Your task to perform on an android device: search for starred emails in the gmail app Image 0: 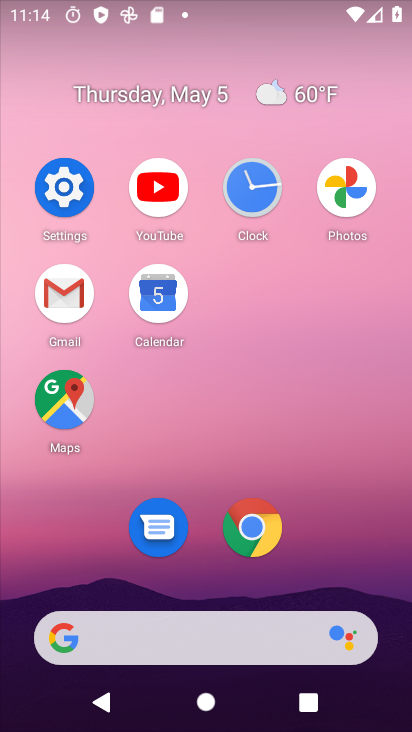
Step 0: click (78, 284)
Your task to perform on an android device: search for starred emails in the gmail app Image 1: 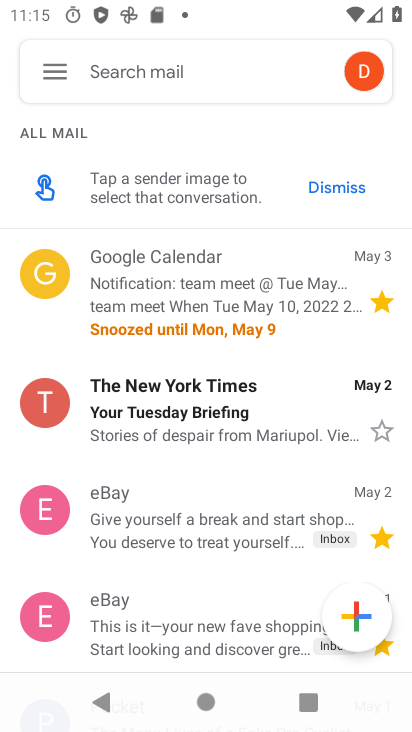
Step 1: click (56, 58)
Your task to perform on an android device: search for starred emails in the gmail app Image 2: 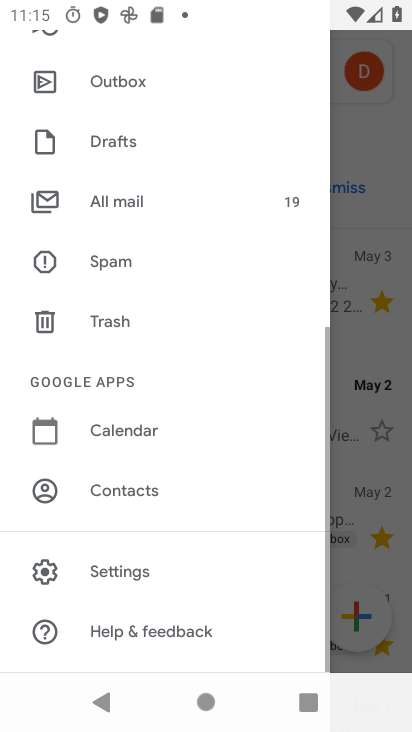
Step 2: drag from (171, 236) to (192, 660)
Your task to perform on an android device: search for starred emails in the gmail app Image 3: 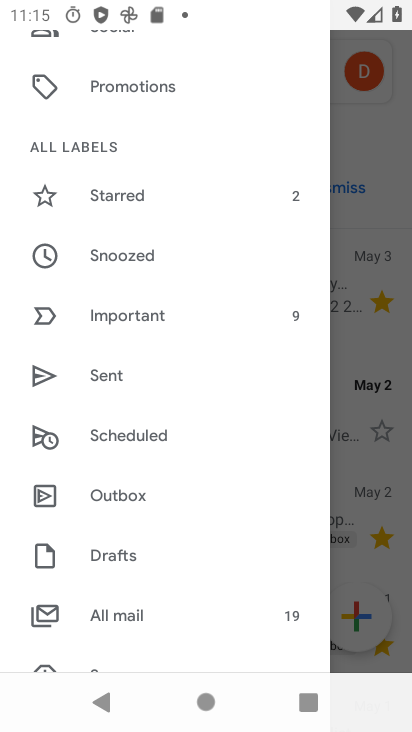
Step 3: click (133, 190)
Your task to perform on an android device: search for starred emails in the gmail app Image 4: 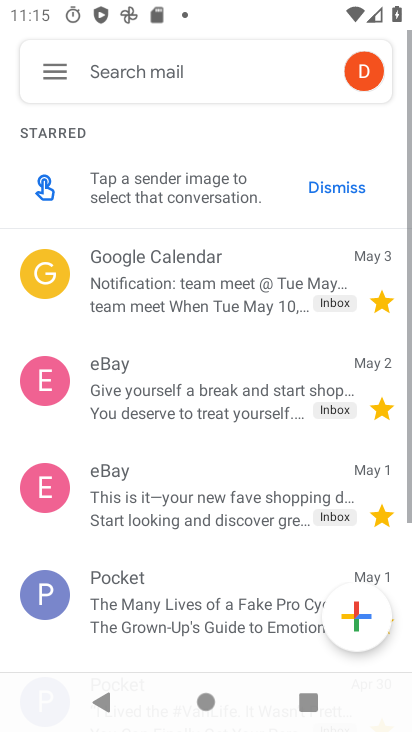
Step 4: task complete